Your task to perform on an android device: turn off location Image 0: 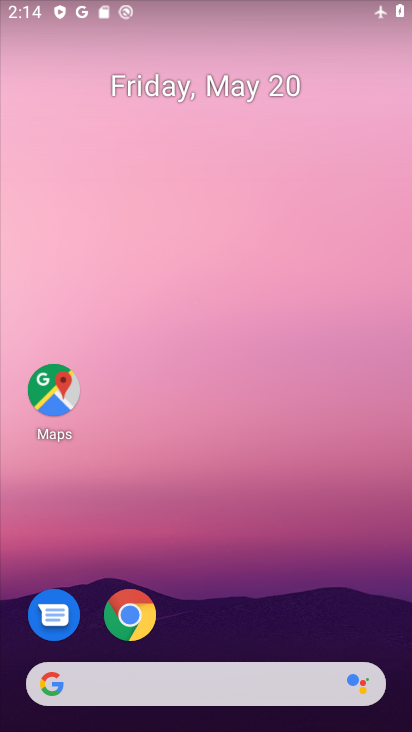
Step 0: drag from (206, 577) to (57, 82)
Your task to perform on an android device: turn off location Image 1: 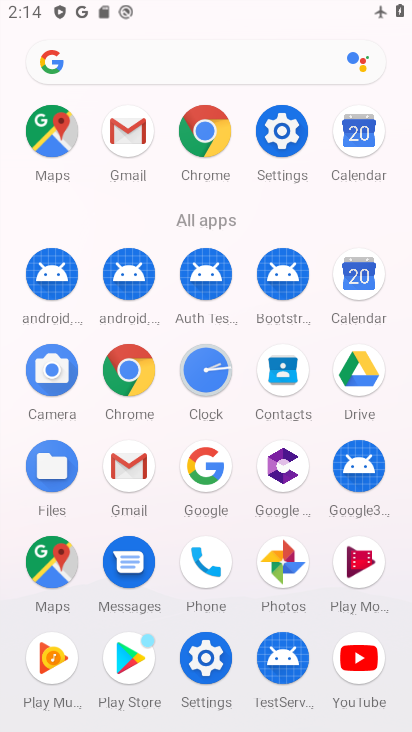
Step 1: click (284, 145)
Your task to perform on an android device: turn off location Image 2: 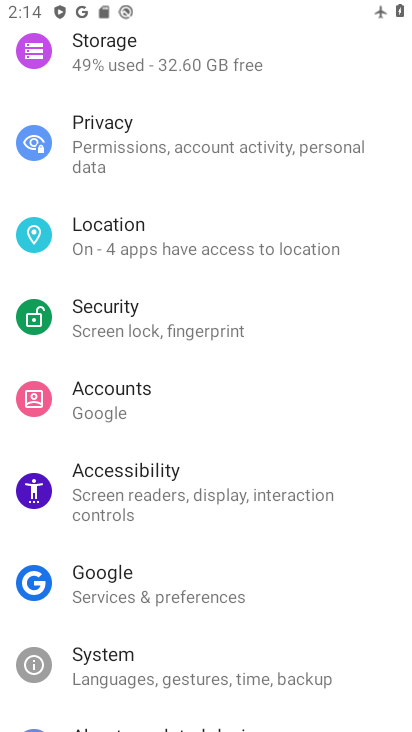
Step 2: click (227, 248)
Your task to perform on an android device: turn off location Image 3: 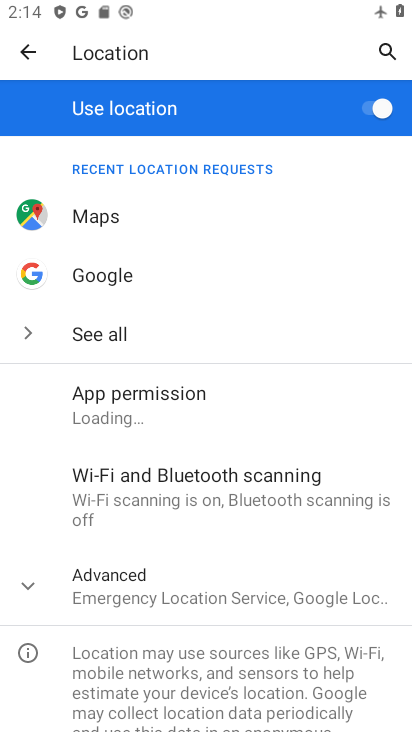
Step 3: click (355, 112)
Your task to perform on an android device: turn off location Image 4: 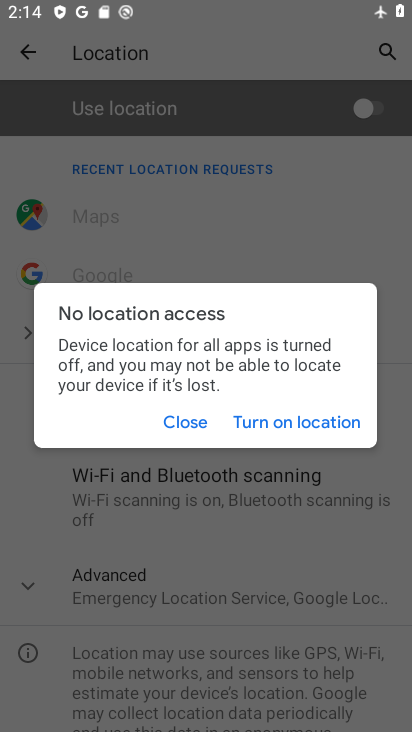
Step 4: task complete